Your task to perform on an android device: Open settings Image 0: 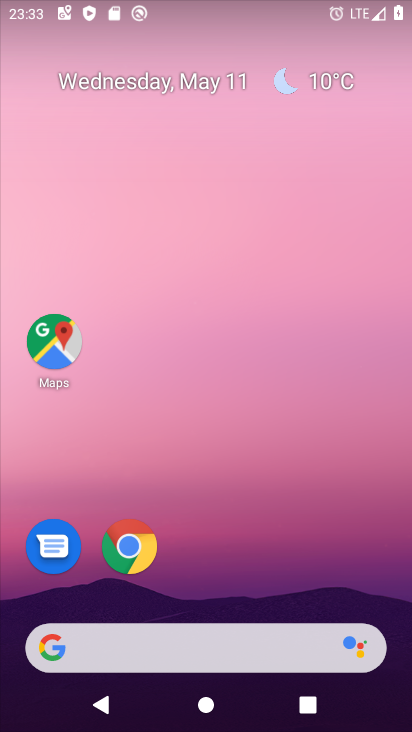
Step 0: drag from (398, 632) to (356, 74)
Your task to perform on an android device: Open settings Image 1: 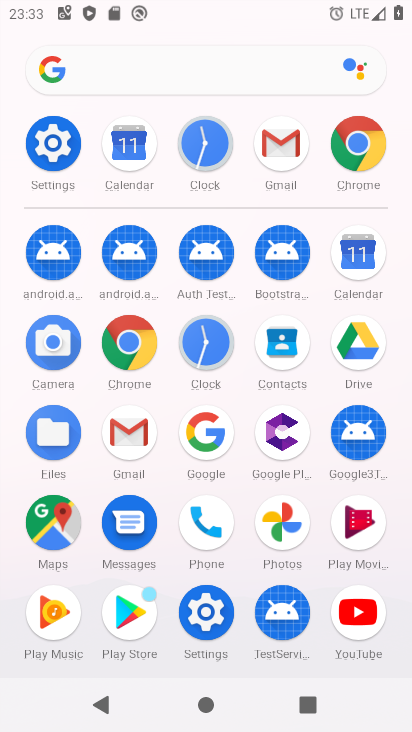
Step 1: click (204, 613)
Your task to perform on an android device: Open settings Image 2: 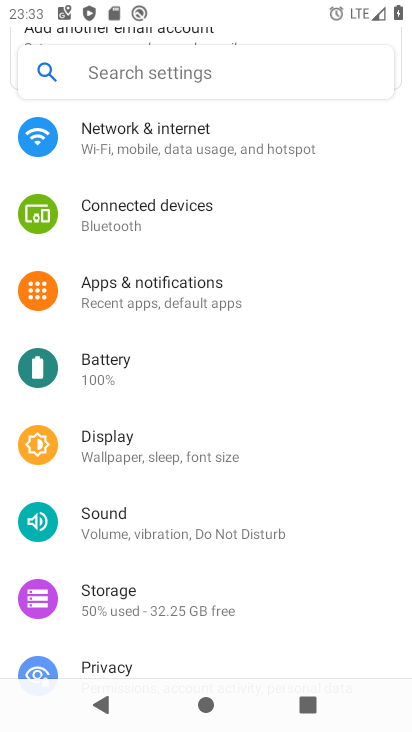
Step 2: task complete